Your task to perform on an android device: Open Google Chrome Image 0: 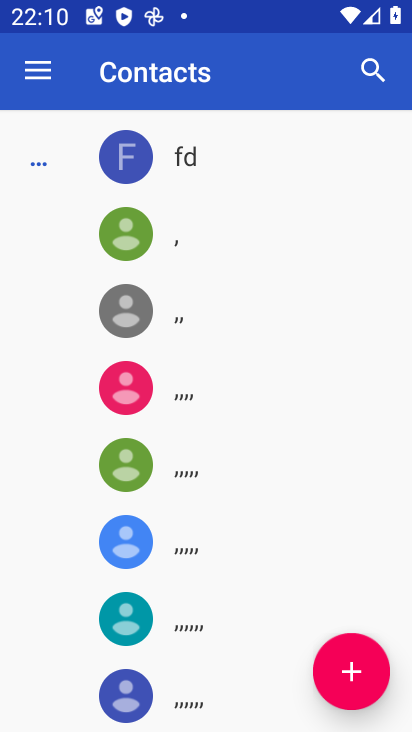
Step 0: press home button
Your task to perform on an android device: Open Google Chrome Image 1: 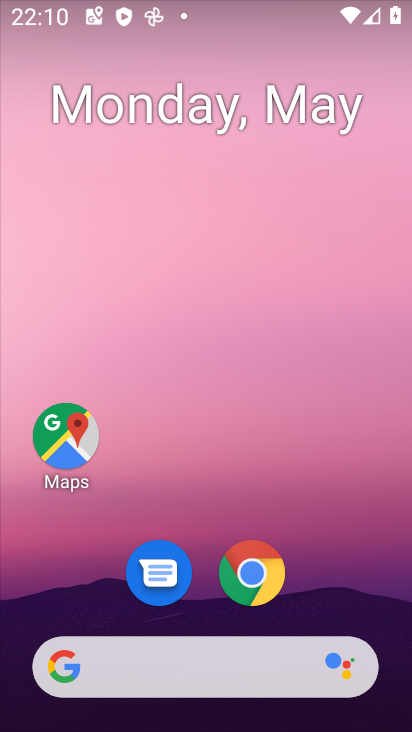
Step 1: click (263, 604)
Your task to perform on an android device: Open Google Chrome Image 2: 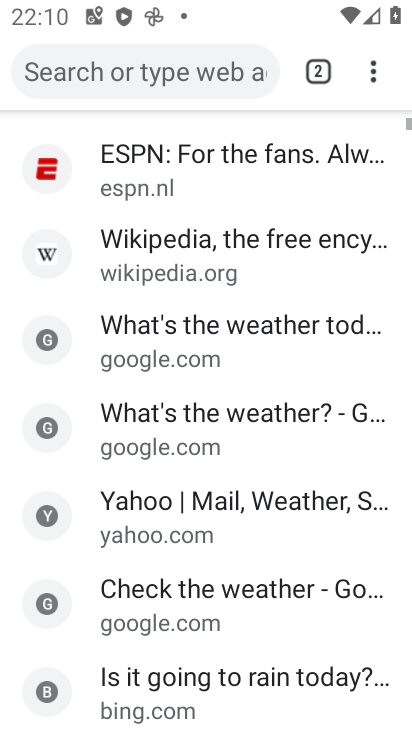
Step 2: task complete